Your task to perform on an android device: change notifications settings Image 0: 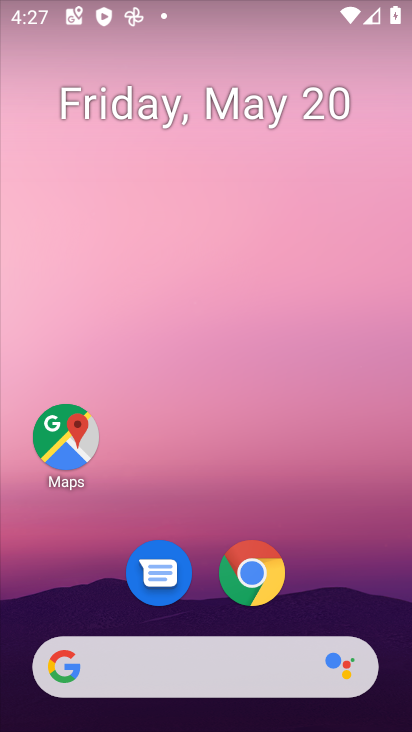
Step 0: drag from (383, 627) to (337, 104)
Your task to perform on an android device: change notifications settings Image 1: 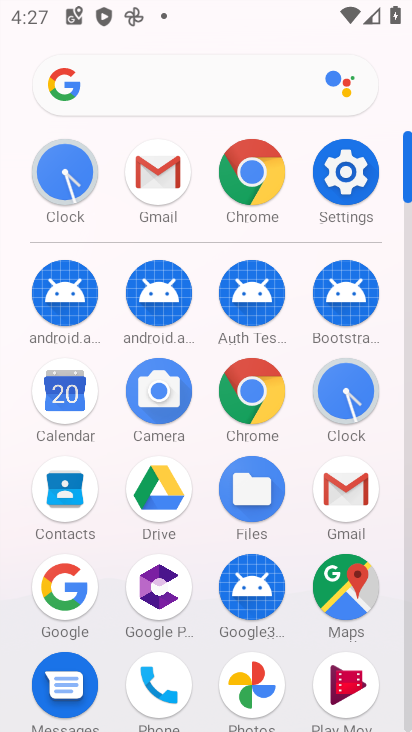
Step 1: click (407, 710)
Your task to perform on an android device: change notifications settings Image 2: 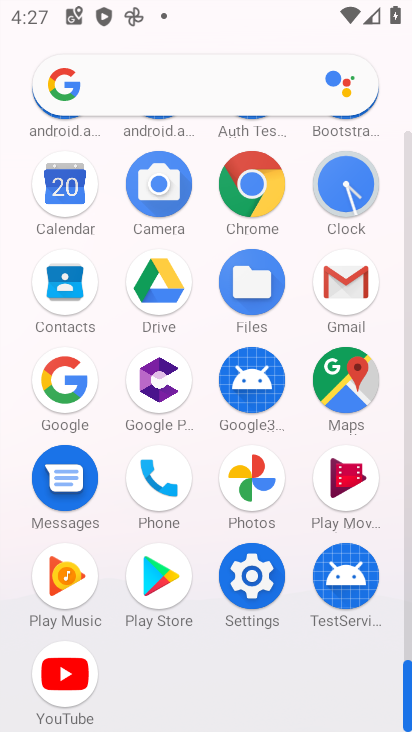
Step 2: click (256, 575)
Your task to perform on an android device: change notifications settings Image 3: 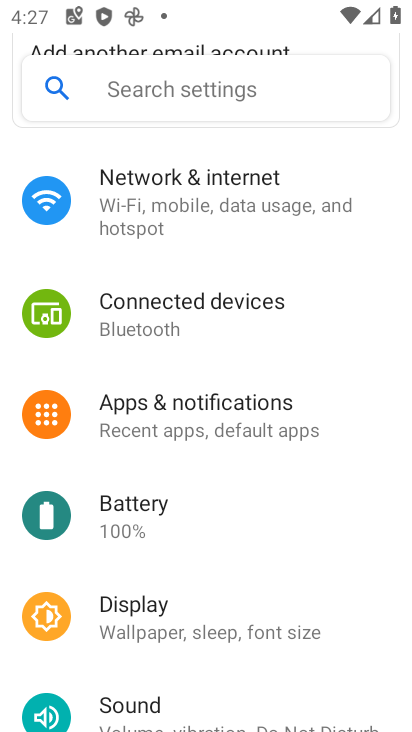
Step 3: click (166, 411)
Your task to perform on an android device: change notifications settings Image 4: 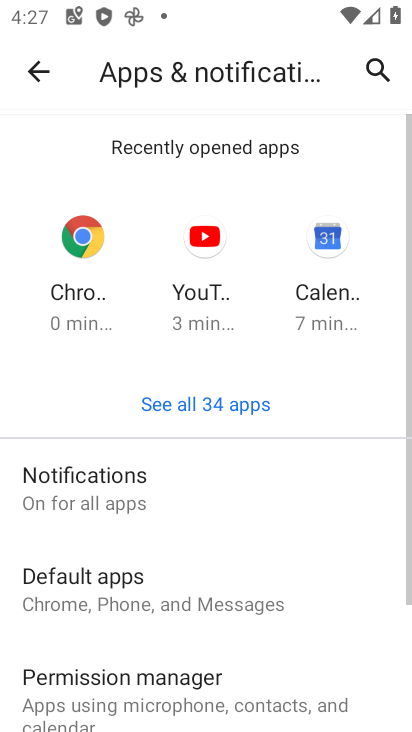
Step 4: click (96, 478)
Your task to perform on an android device: change notifications settings Image 5: 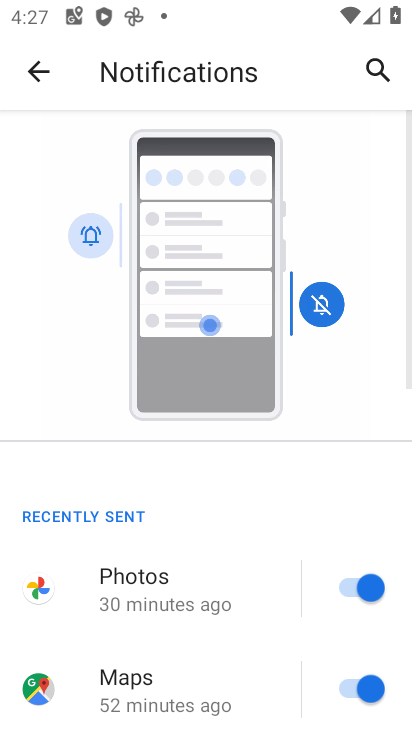
Step 5: drag from (303, 695) to (215, 118)
Your task to perform on an android device: change notifications settings Image 6: 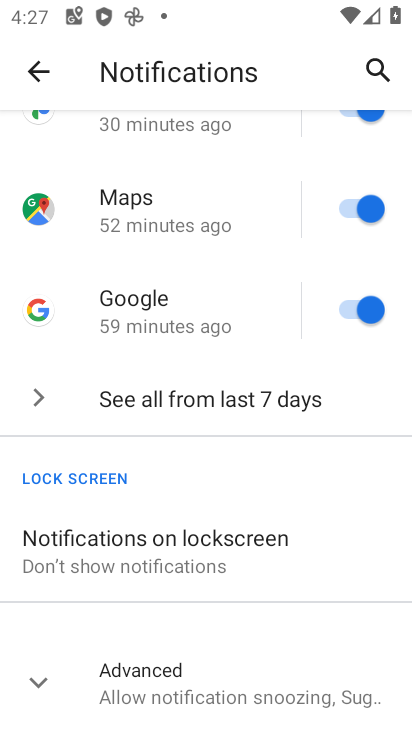
Step 6: click (32, 690)
Your task to perform on an android device: change notifications settings Image 7: 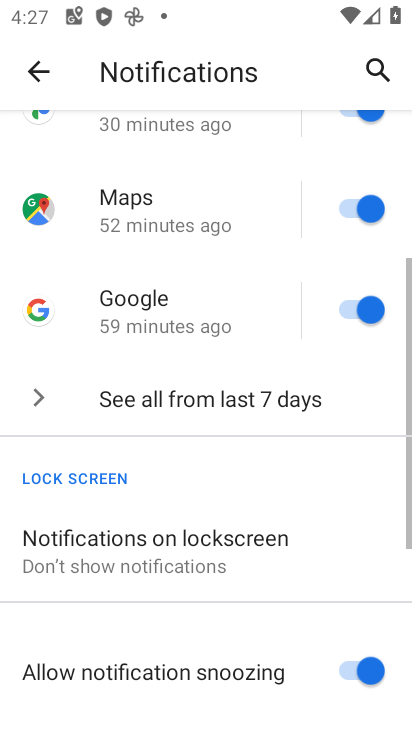
Step 7: drag from (248, 701) to (219, 159)
Your task to perform on an android device: change notifications settings Image 8: 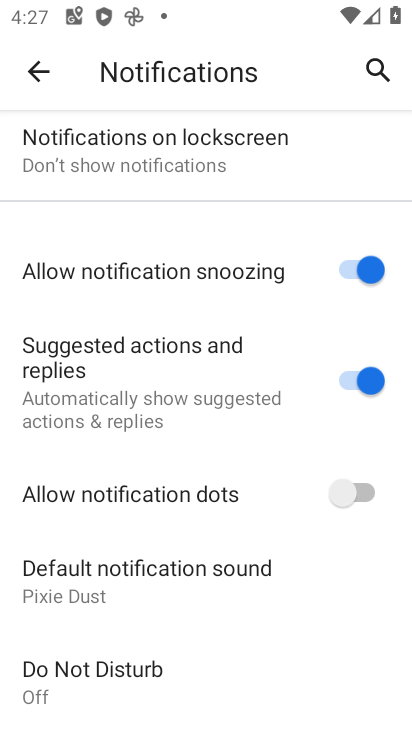
Step 8: drag from (273, 586) to (263, 306)
Your task to perform on an android device: change notifications settings Image 9: 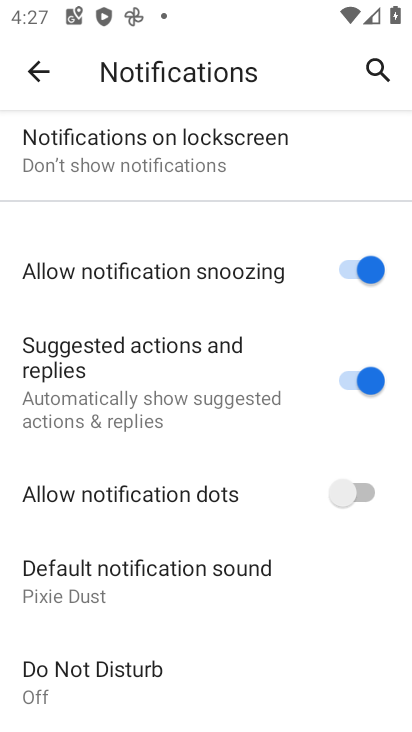
Step 9: click (351, 273)
Your task to perform on an android device: change notifications settings Image 10: 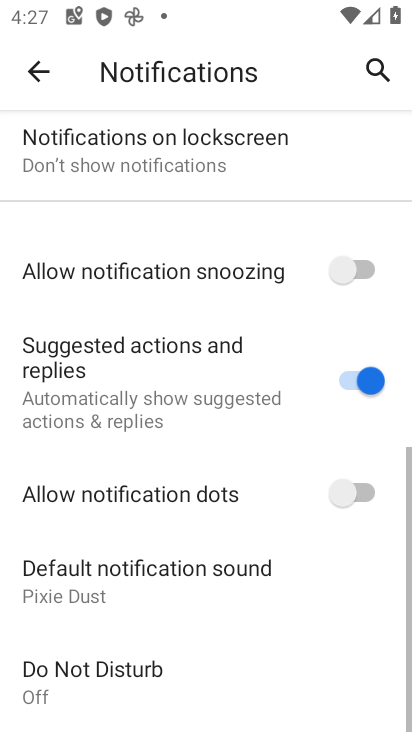
Step 10: click (372, 488)
Your task to perform on an android device: change notifications settings Image 11: 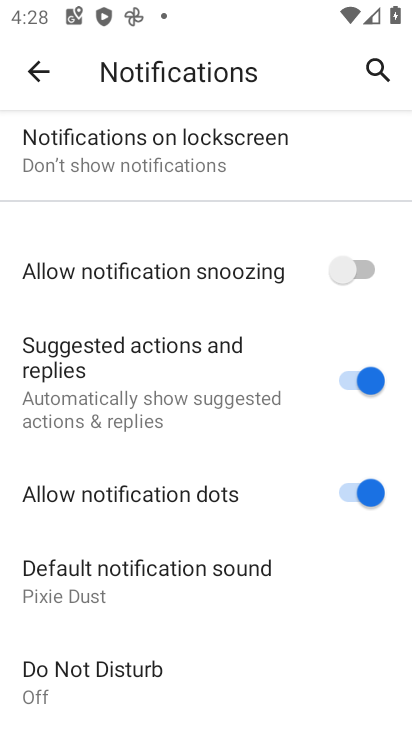
Step 11: task complete